Your task to perform on an android device: Search for Mexican restaurants on Maps Image 0: 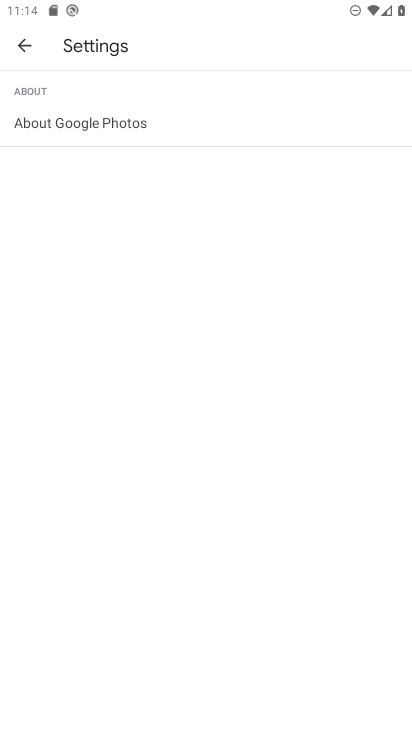
Step 0: click (27, 45)
Your task to perform on an android device: Search for Mexican restaurants on Maps Image 1: 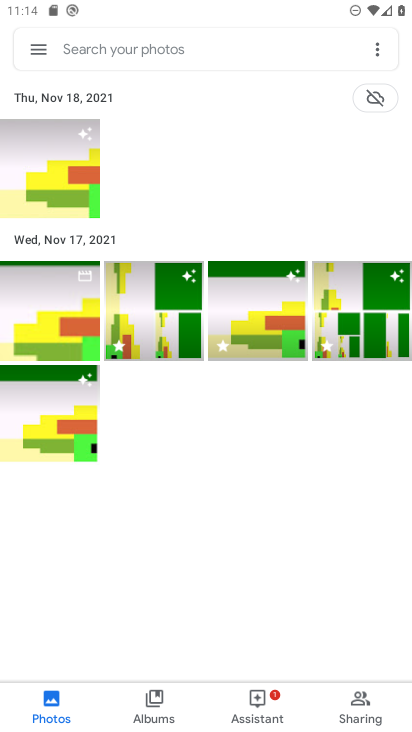
Step 1: press back button
Your task to perform on an android device: Search for Mexican restaurants on Maps Image 2: 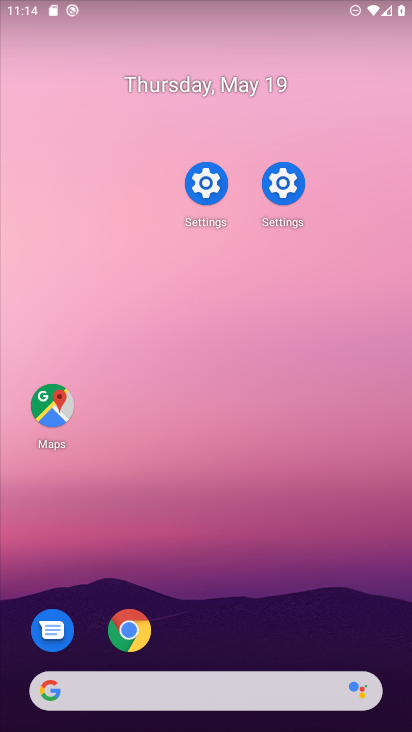
Step 2: drag from (247, 655) to (208, 54)
Your task to perform on an android device: Search for Mexican restaurants on Maps Image 3: 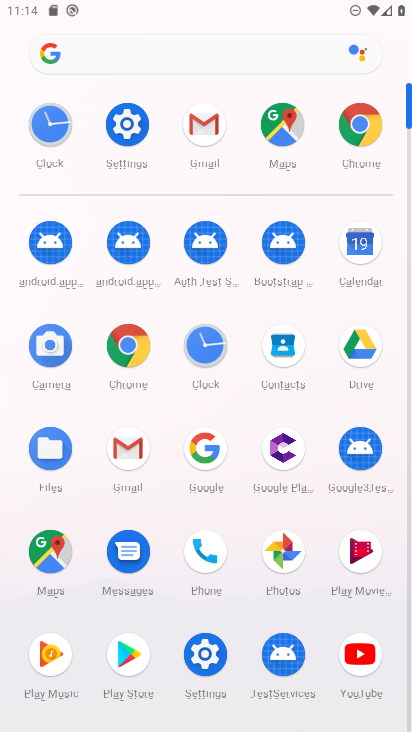
Step 3: click (288, 124)
Your task to perform on an android device: Search for Mexican restaurants on Maps Image 4: 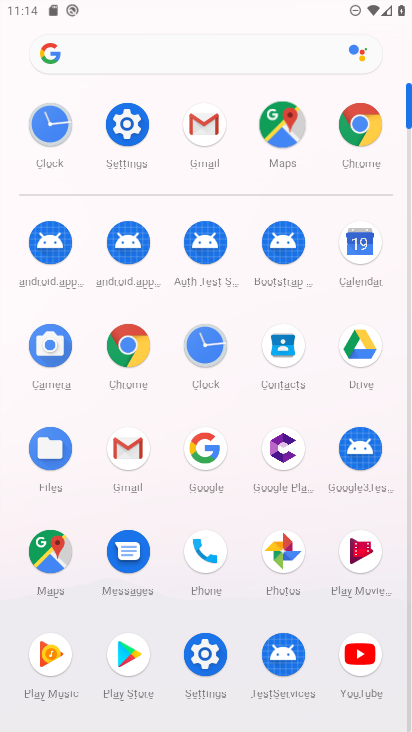
Step 4: click (288, 124)
Your task to perform on an android device: Search for Mexican restaurants on Maps Image 5: 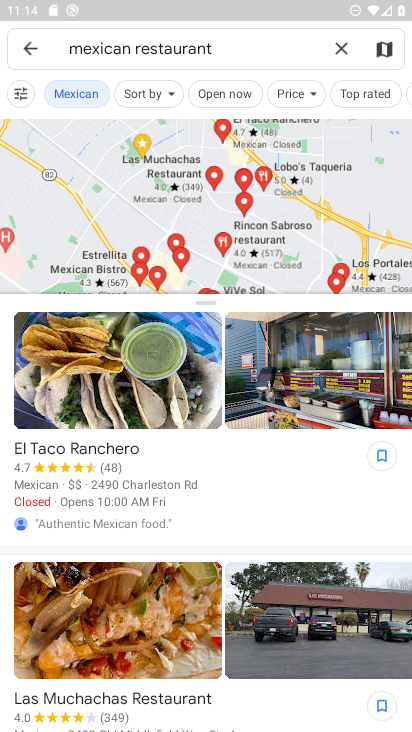
Step 5: task complete